Your task to perform on an android device: Open the calendar app, open the side menu, and click the "Day" option Image 0: 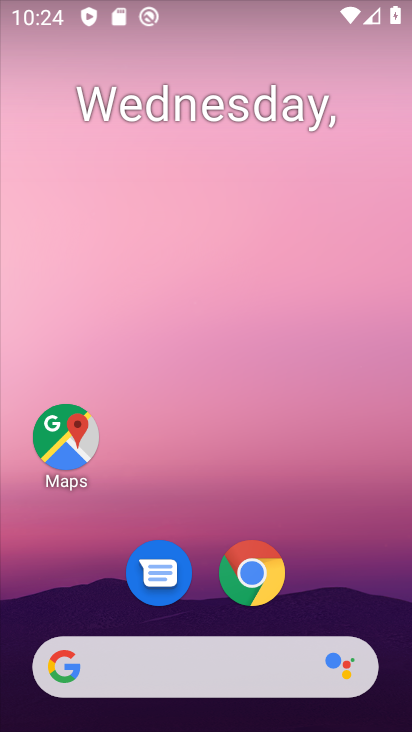
Step 0: drag from (316, 588) to (323, 147)
Your task to perform on an android device: Open the calendar app, open the side menu, and click the "Day" option Image 1: 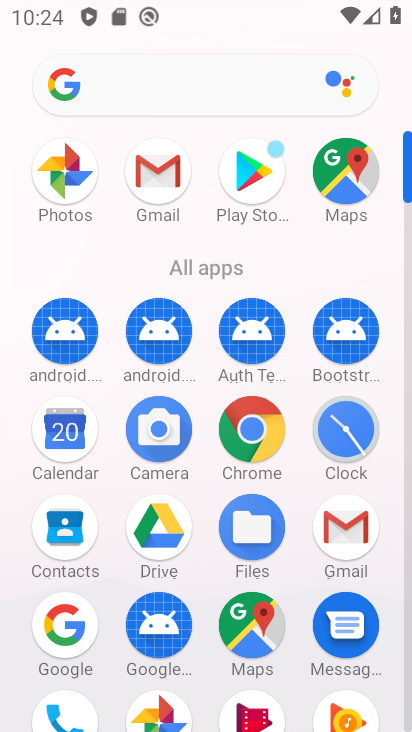
Step 1: click (74, 455)
Your task to perform on an android device: Open the calendar app, open the side menu, and click the "Day" option Image 2: 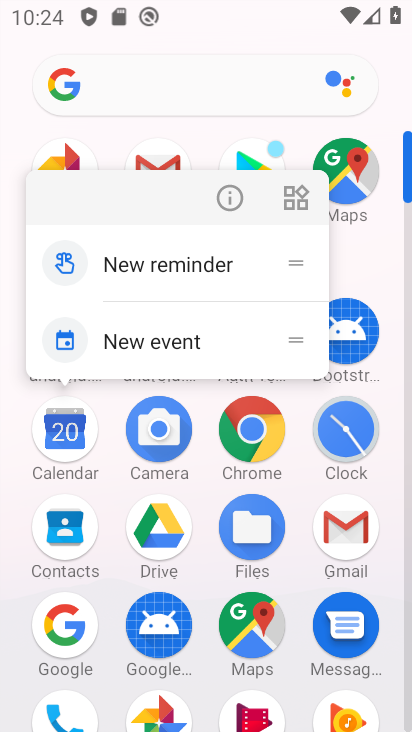
Step 2: click (47, 439)
Your task to perform on an android device: Open the calendar app, open the side menu, and click the "Day" option Image 3: 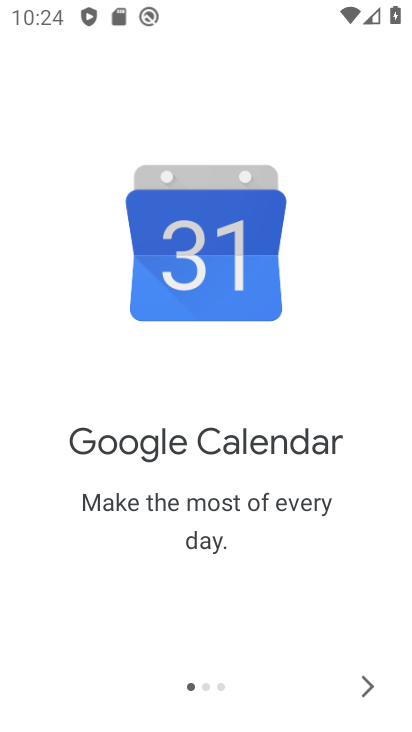
Step 3: click (356, 687)
Your task to perform on an android device: Open the calendar app, open the side menu, and click the "Day" option Image 4: 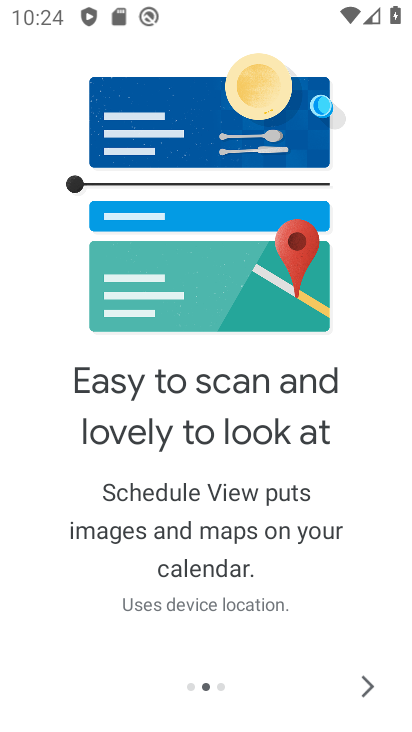
Step 4: click (357, 687)
Your task to perform on an android device: Open the calendar app, open the side menu, and click the "Day" option Image 5: 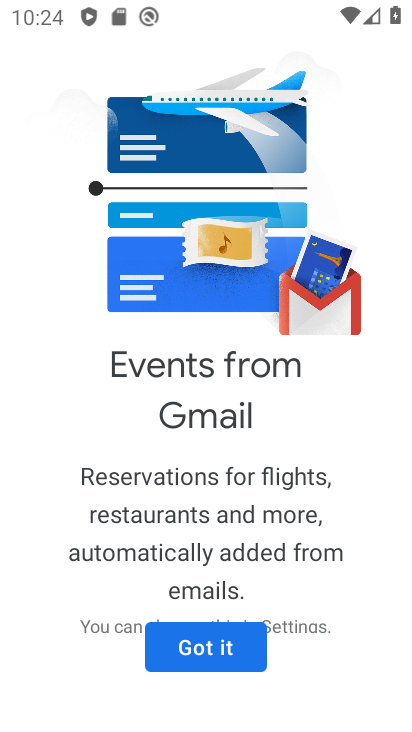
Step 5: click (210, 636)
Your task to perform on an android device: Open the calendar app, open the side menu, and click the "Day" option Image 6: 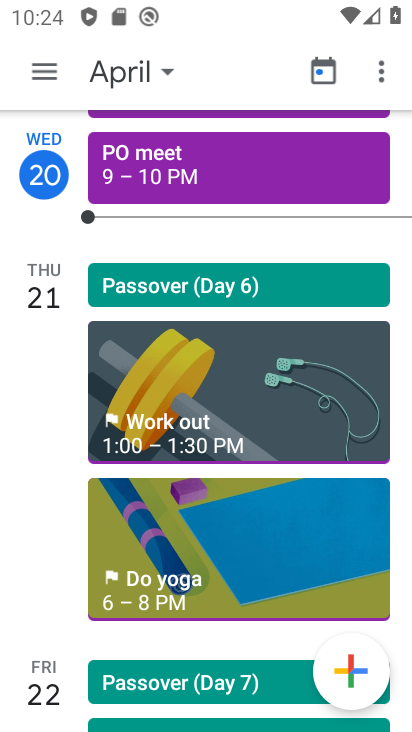
Step 6: click (42, 69)
Your task to perform on an android device: Open the calendar app, open the side menu, and click the "Day" option Image 7: 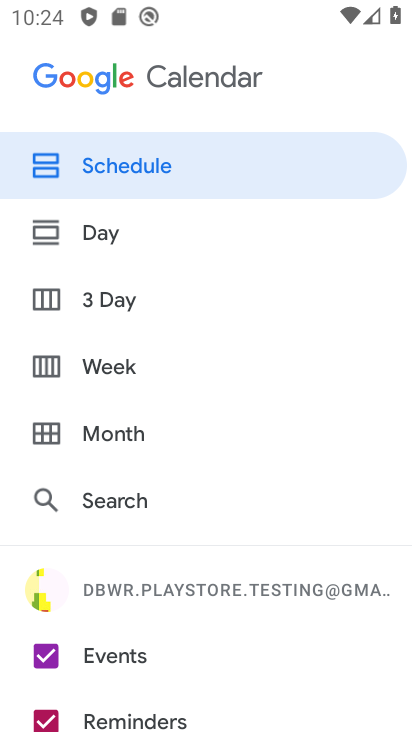
Step 7: click (111, 227)
Your task to perform on an android device: Open the calendar app, open the side menu, and click the "Day" option Image 8: 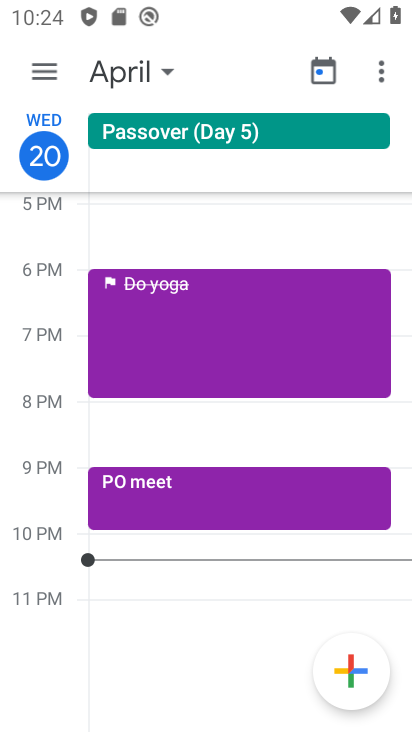
Step 8: task complete